Your task to perform on an android device: Go to CNN.com Image 0: 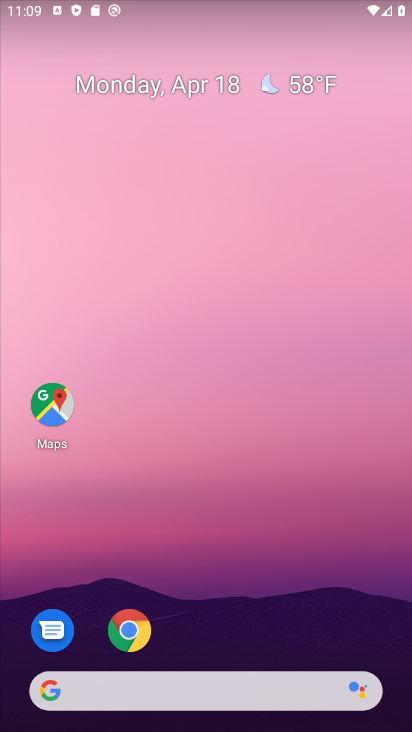
Step 0: click (136, 629)
Your task to perform on an android device: Go to CNN.com Image 1: 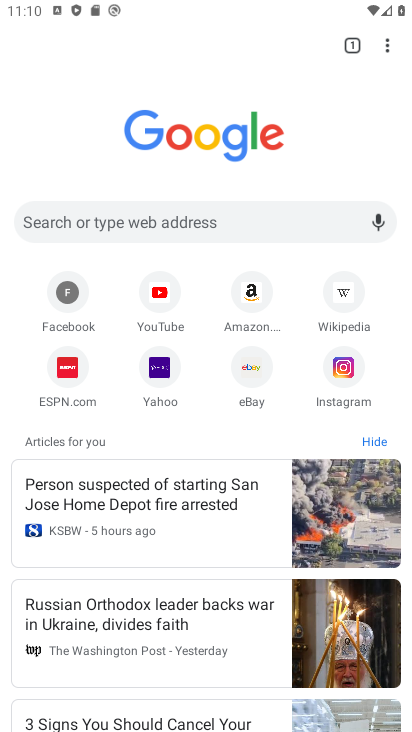
Step 1: click (218, 227)
Your task to perform on an android device: Go to CNN.com Image 2: 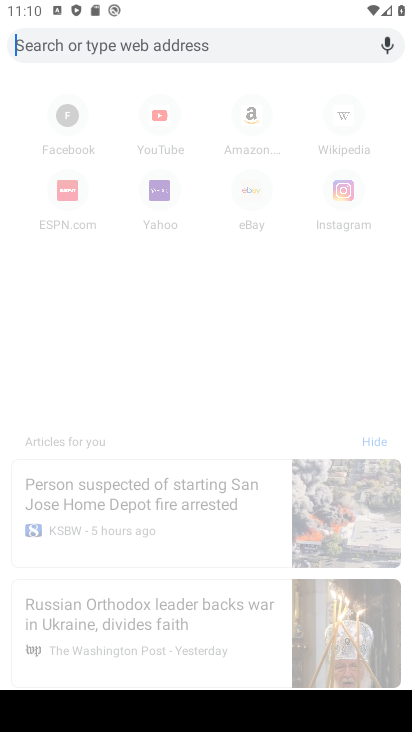
Step 2: type "cnn"
Your task to perform on an android device: Go to CNN.com Image 3: 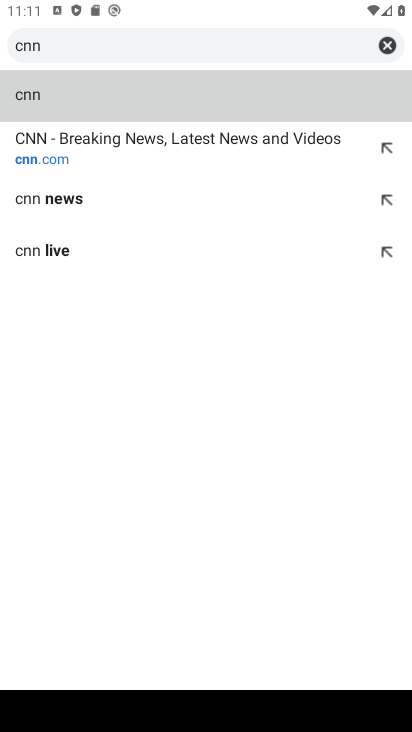
Step 3: click (117, 144)
Your task to perform on an android device: Go to CNN.com Image 4: 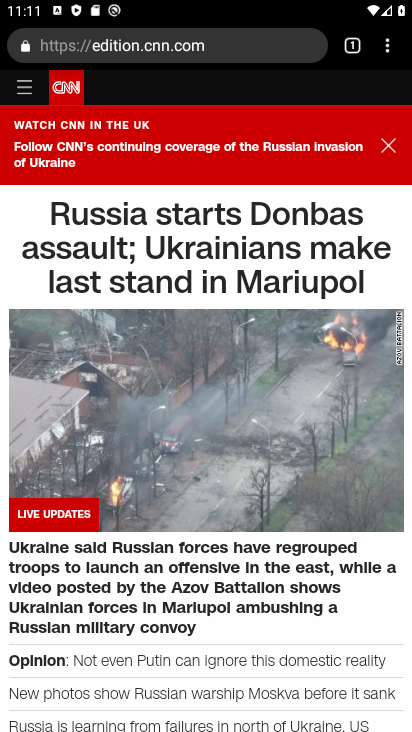
Step 4: task complete